Your task to perform on an android device: Open Maps and search for coffee Image 0: 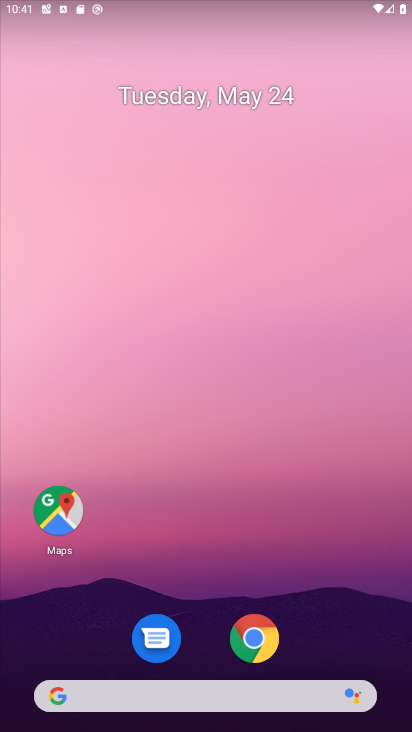
Step 0: drag from (276, 714) to (206, 145)
Your task to perform on an android device: Open Maps and search for coffee Image 1: 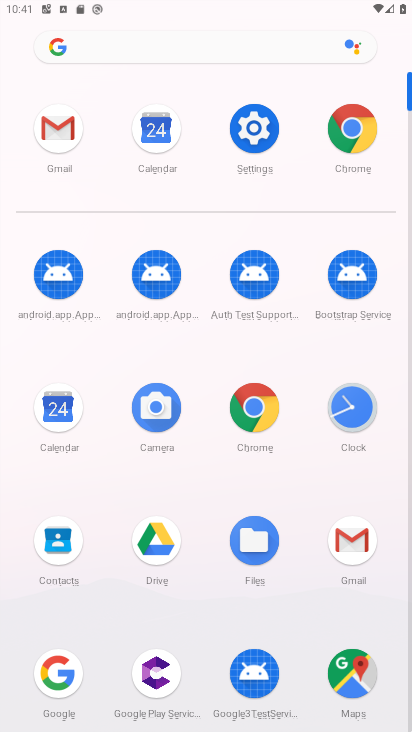
Step 1: drag from (145, 617) to (128, 148)
Your task to perform on an android device: Open Maps and search for coffee Image 2: 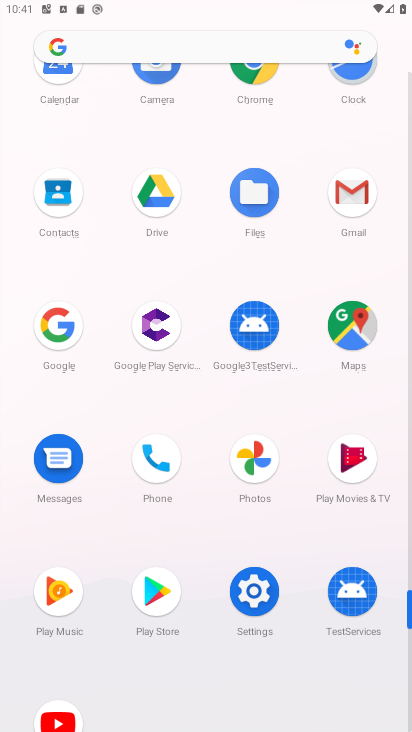
Step 2: click (346, 331)
Your task to perform on an android device: Open Maps and search for coffee Image 3: 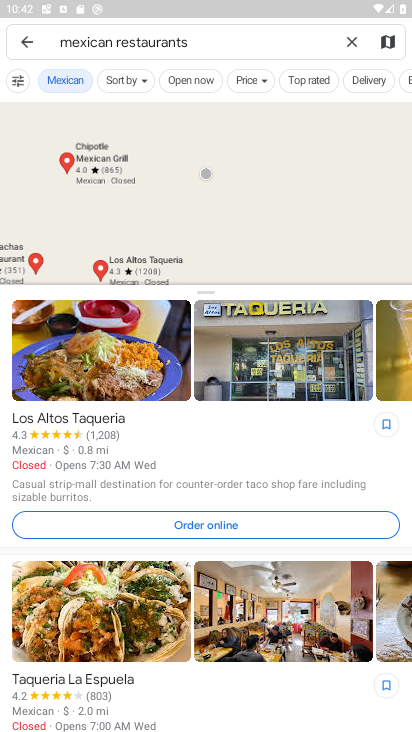
Step 3: click (355, 43)
Your task to perform on an android device: Open Maps and search for coffee Image 4: 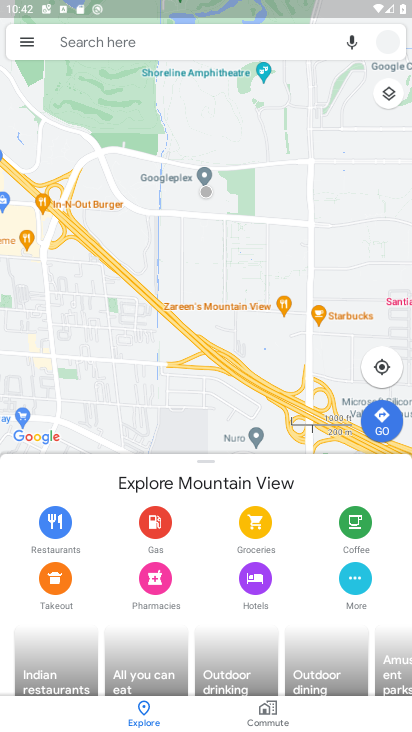
Step 4: click (198, 44)
Your task to perform on an android device: Open Maps and search for coffee Image 5: 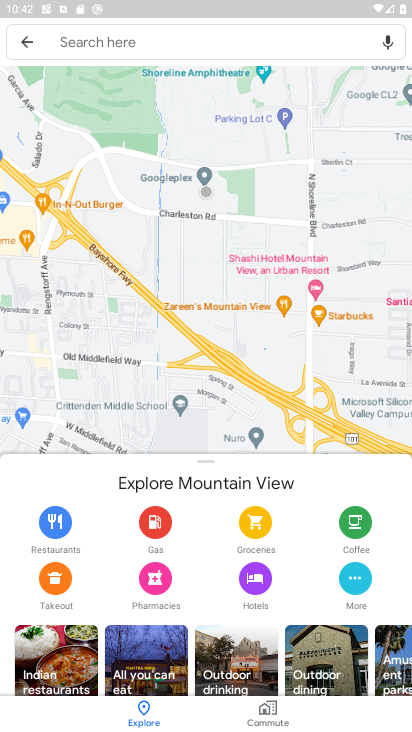
Step 5: click (196, 40)
Your task to perform on an android device: Open Maps and search for coffee Image 6: 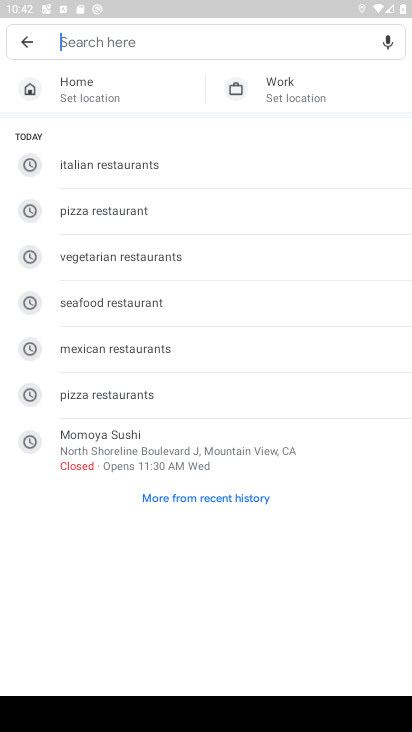
Step 6: type "coffee"
Your task to perform on an android device: Open Maps and search for coffee Image 7: 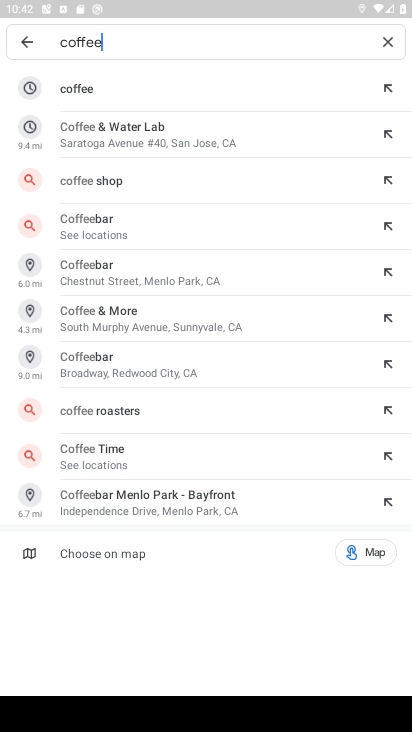
Step 7: click (149, 88)
Your task to perform on an android device: Open Maps and search for coffee Image 8: 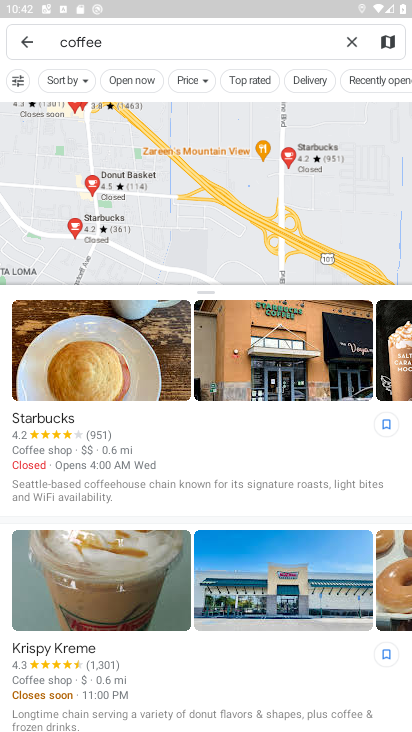
Step 8: task complete